Your task to perform on an android device: toggle javascript in the chrome app Image 0: 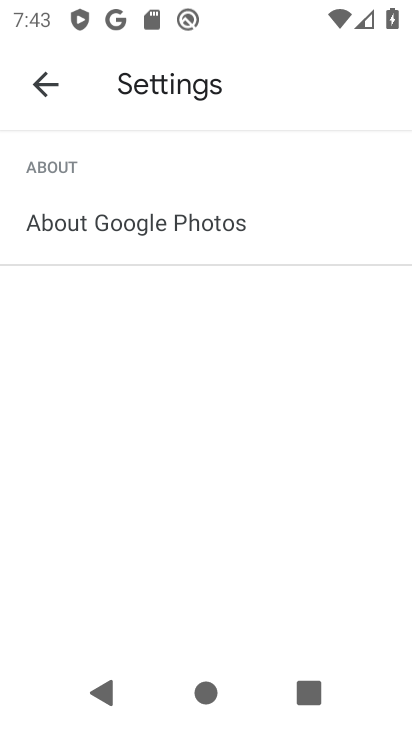
Step 0: press home button
Your task to perform on an android device: toggle javascript in the chrome app Image 1: 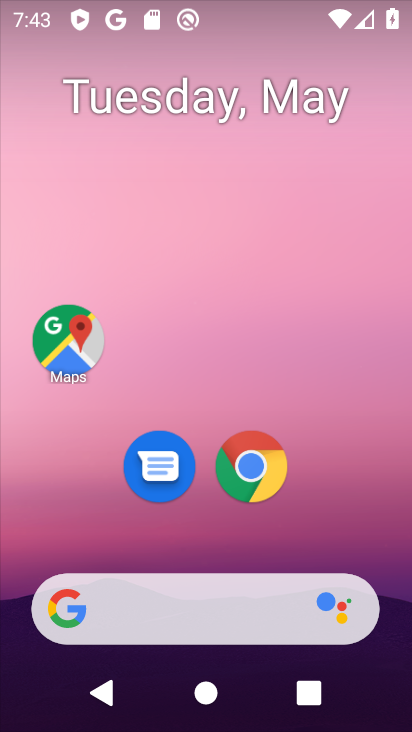
Step 1: click (256, 472)
Your task to perform on an android device: toggle javascript in the chrome app Image 2: 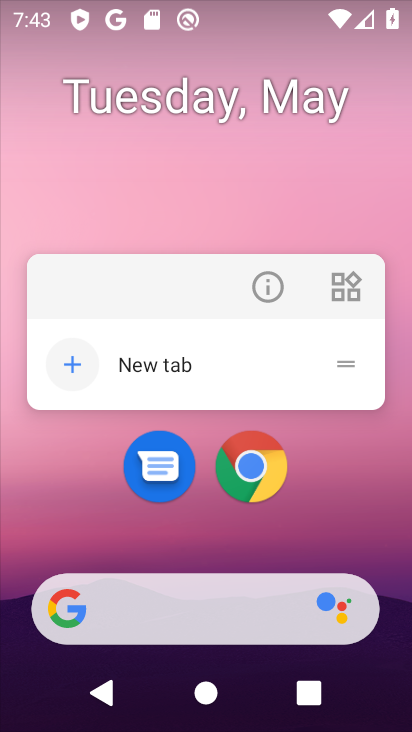
Step 2: click (242, 468)
Your task to perform on an android device: toggle javascript in the chrome app Image 3: 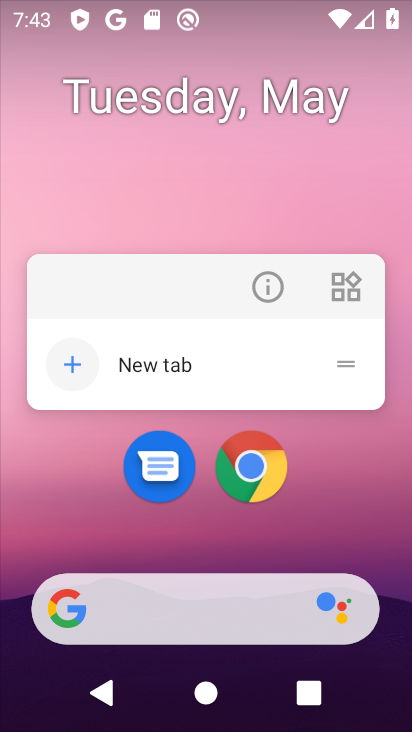
Step 3: click (249, 469)
Your task to perform on an android device: toggle javascript in the chrome app Image 4: 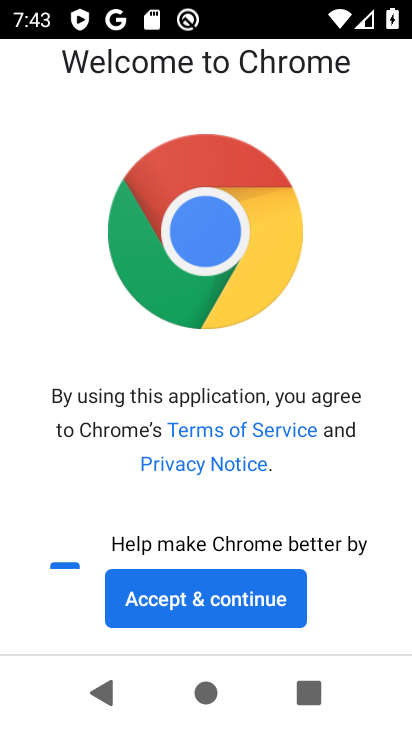
Step 4: click (246, 594)
Your task to perform on an android device: toggle javascript in the chrome app Image 5: 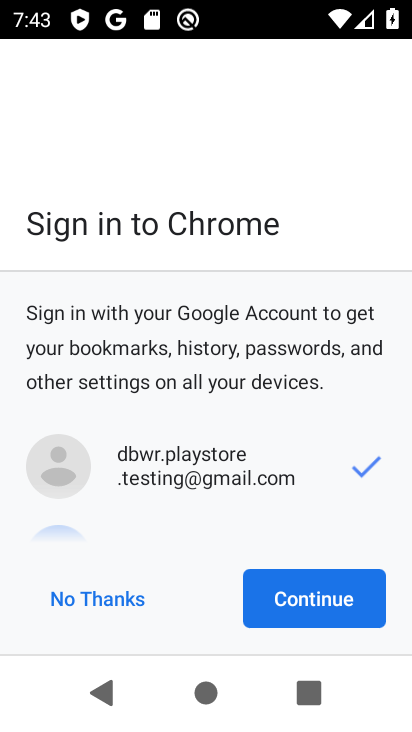
Step 5: click (291, 599)
Your task to perform on an android device: toggle javascript in the chrome app Image 6: 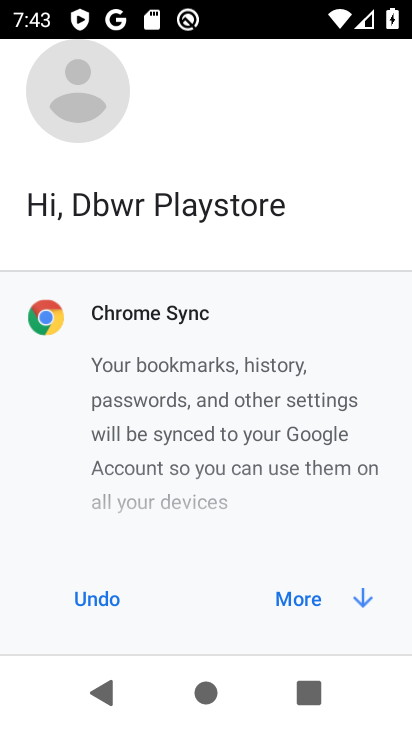
Step 6: click (291, 599)
Your task to perform on an android device: toggle javascript in the chrome app Image 7: 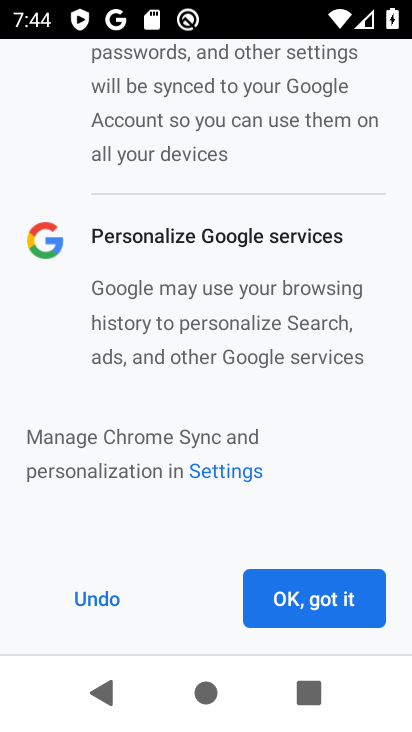
Step 7: click (291, 599)
Your task to perform on an android device: toggle javascript in the chrome app Image 8: 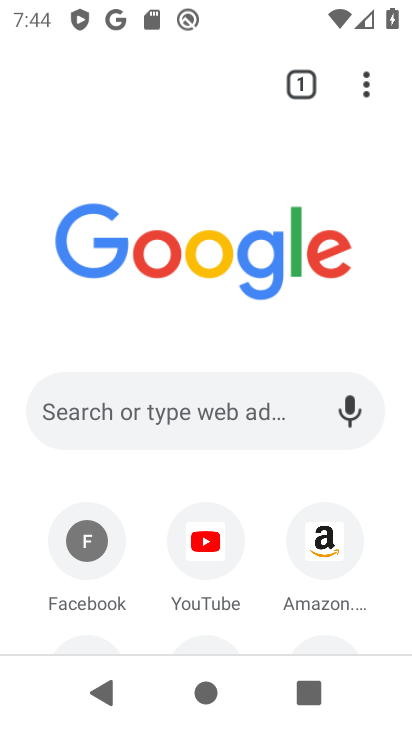
Step 8: click (364, 87)
Your task to perform on an android device: toggle javascript in the chrome app Image 9: 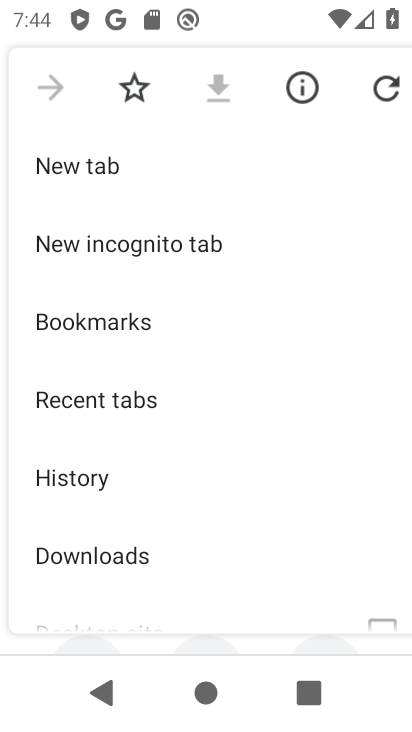
Step 9: drag from (220, 595) to (222, 283)
Your task to perform on an android device: toggle javascript in the chrome app Image 10: 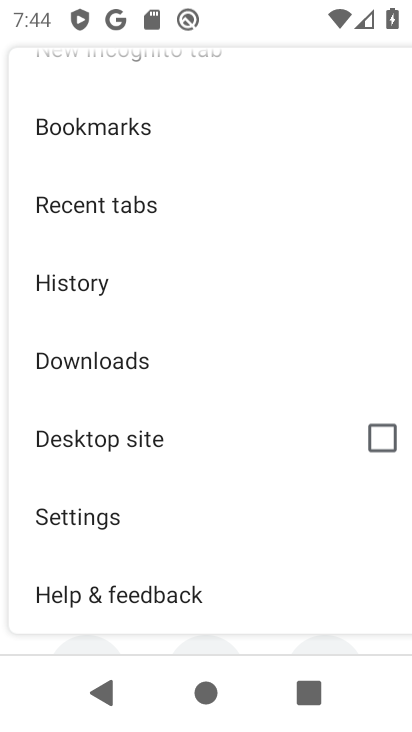
Step 10: click (104, 524)
Your task to perform on an android device: toggle javascript in the chrome app Image 11: 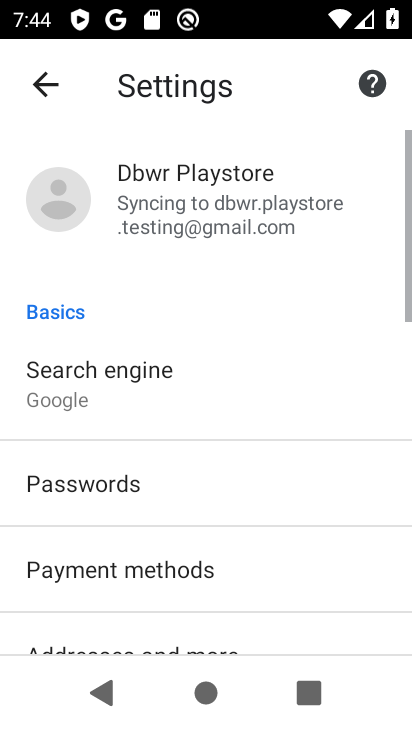
Step 11: drag from (98, 614) to (122, 212)
Your task to perform on an android device: toggle javascript in the chrome app Image 12: 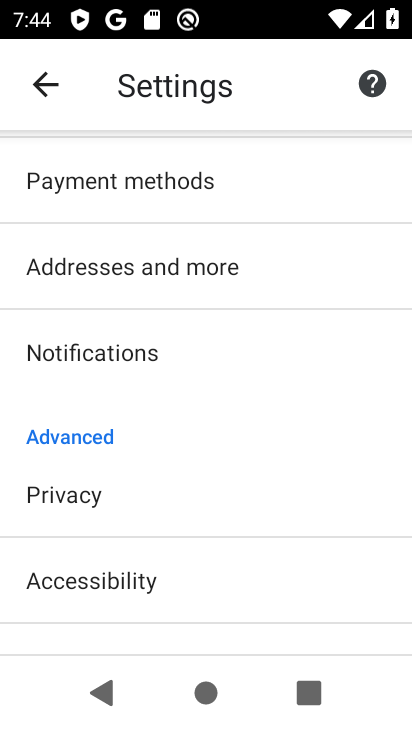
Step 12: drag from (116, 602) to (125, 197)
Your task to perform on an android device: toggle javascript in the chrome app Image 13: 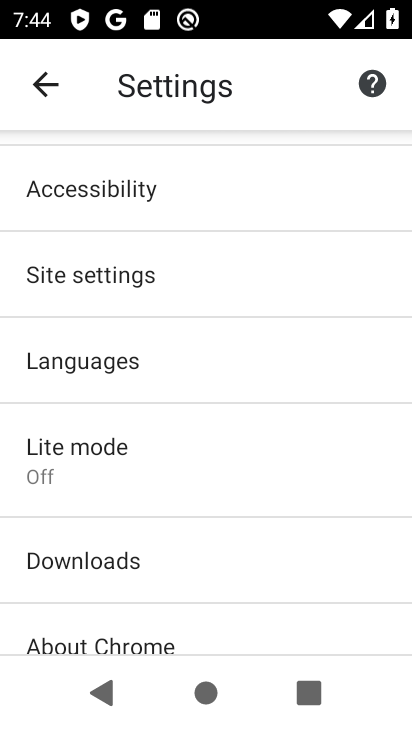
Step 13: click (82, 295)
Your task to perform on an android device: toggle javascript in the chrome app Image 14: 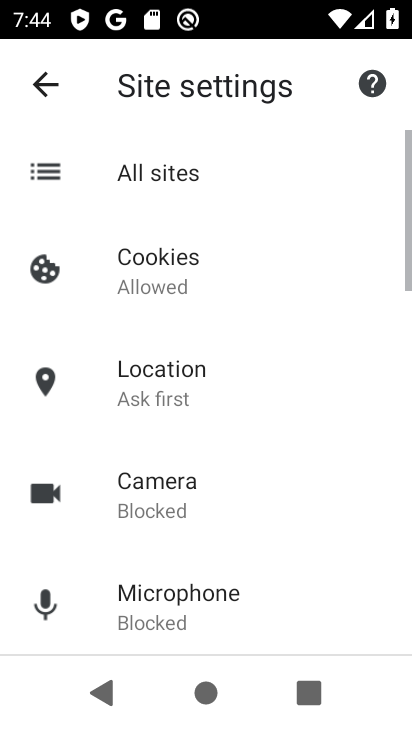
Step 14: drag from (186, 625) to (162, 244)
Your task to perform on an android device: toggle javascript in the chrome app Image 15: 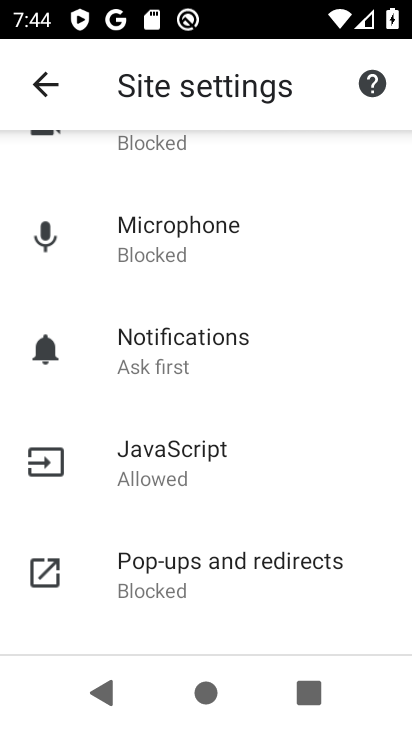
Step 15: click (174, 464)
Your task to perform on an android device: toggle javascript in the chrome app Image 16: 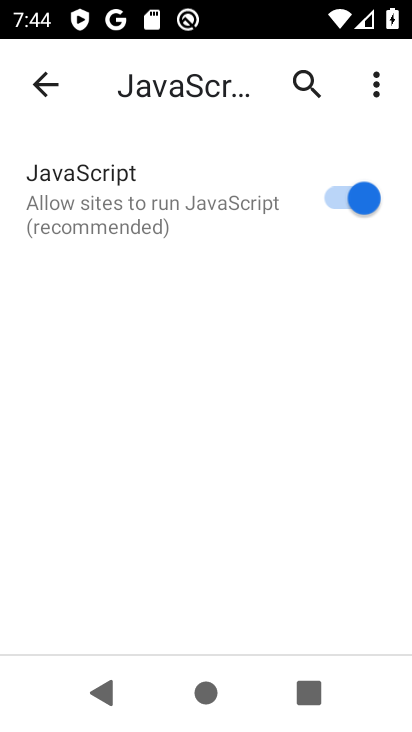
Step 16: click (347, 195)
Your task to perform on an android device: toggle javascript in the chrome app Image 17: 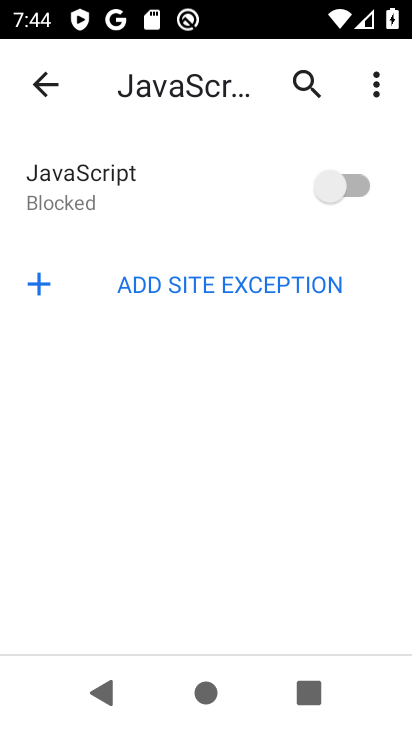
Step 17: task complete